Your task to perform on an android device: turn off airplane mode Image 0: 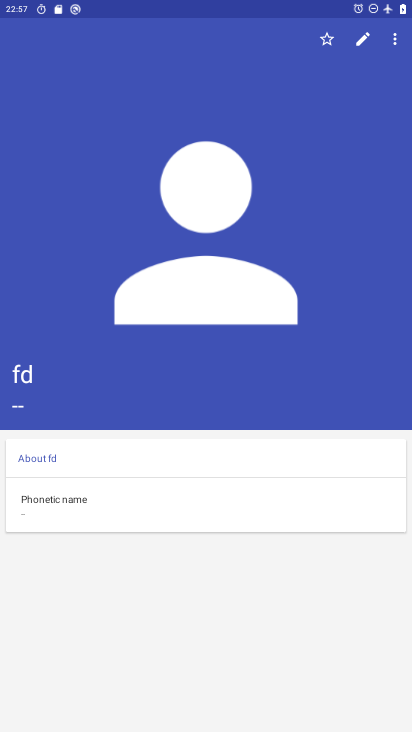
Step 0: press home button
Your task to perform on an android device: turn off airplane mode Image 1: 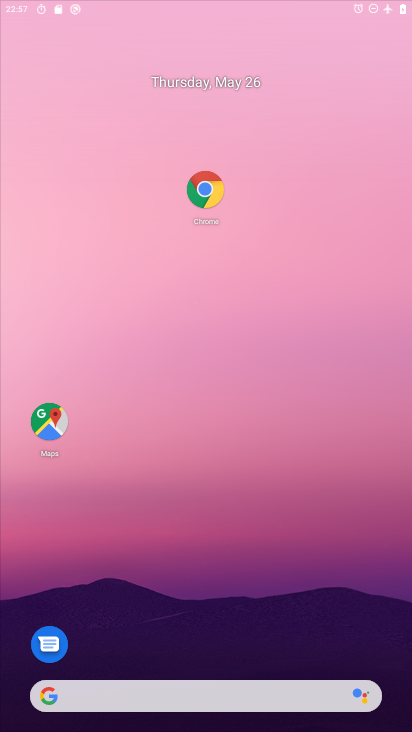
Step 1: drag from (170, 549) to (190, 225)
Your task to perform on an android device: turn off airplane mode Image 2: 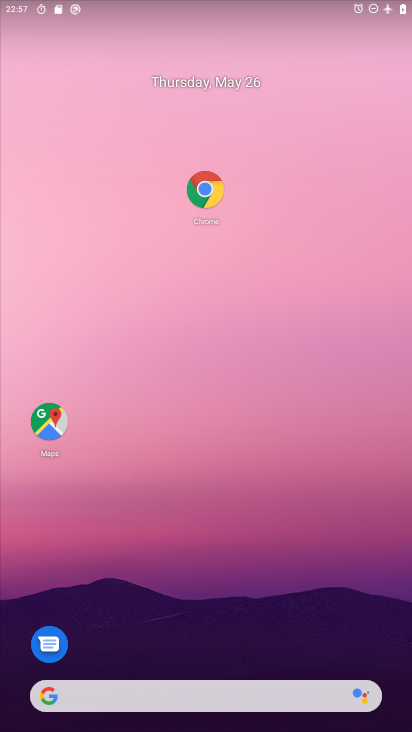
Step 2: drag from (222, 622) to (190, 13)
Your task to perform on an android device: turn off airplane mode Image 3: 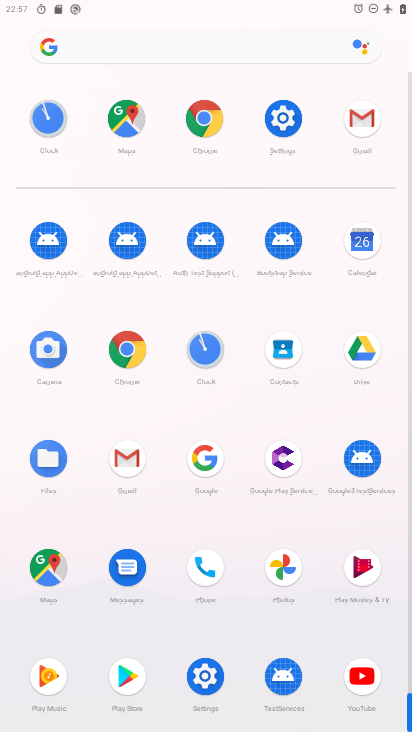
Step 3: click (286, 106)
Your task to perform on an android device: turn off airplane mode Image 4: 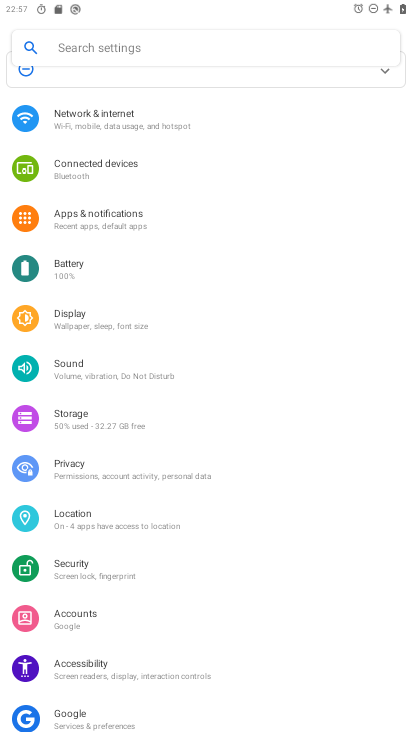
Step 4: click (118, 121)
Your task to perform on an android device: turn off airplane mode Image 5: 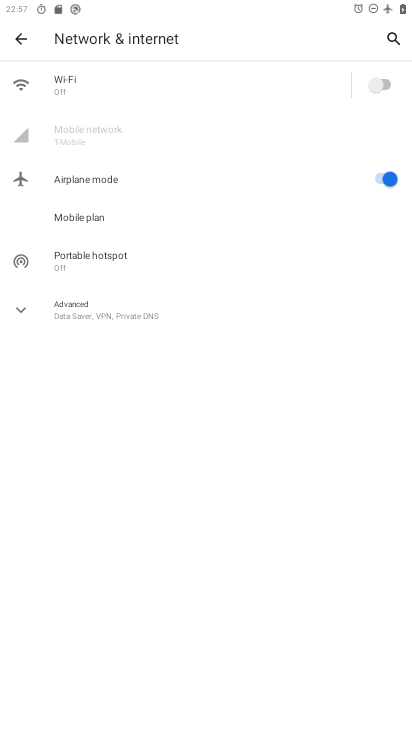
Step 5: click (383, 178)
Your task to perform on an android device: turn off airplane mode Image 6: 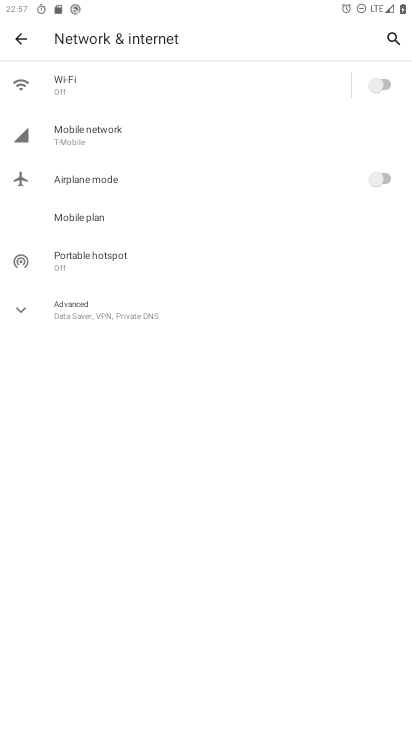
Step 6: task complete